Your task to perform on an android device: change the clock display to show seconds Image 0: 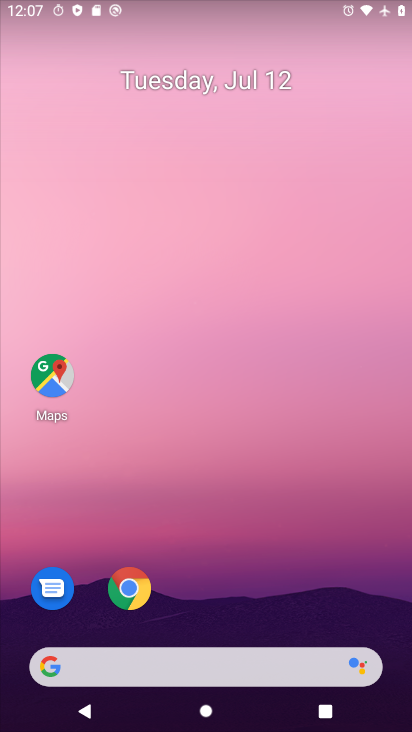
Step 0: drag from (222, 677) to (409, 89)
Your task to perform on an android device: change the clock display to show seconds Image 1: 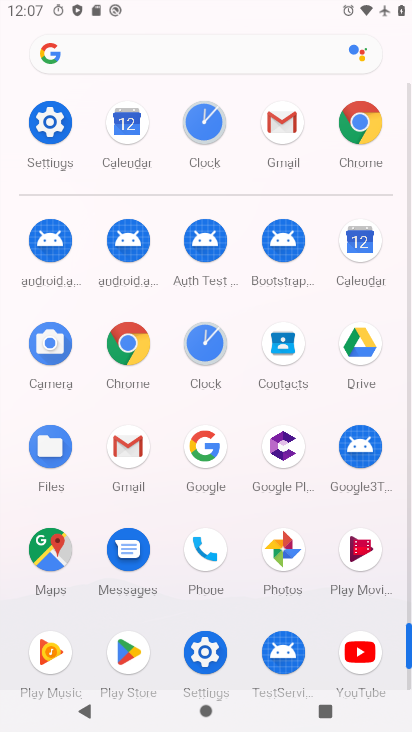
Step 1: click (206, 346)
Your task to perform on an android device: change the clock display to show seconds Image 2: 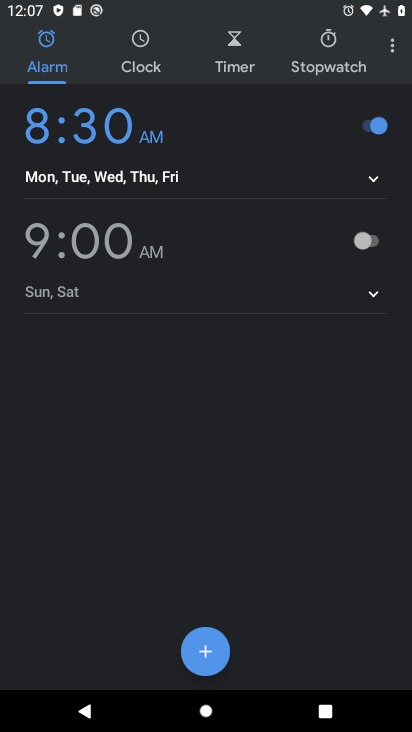
Step 2: click (394, 47)
Your task to perform on an android device: change the clock display to show seconds Image 3: 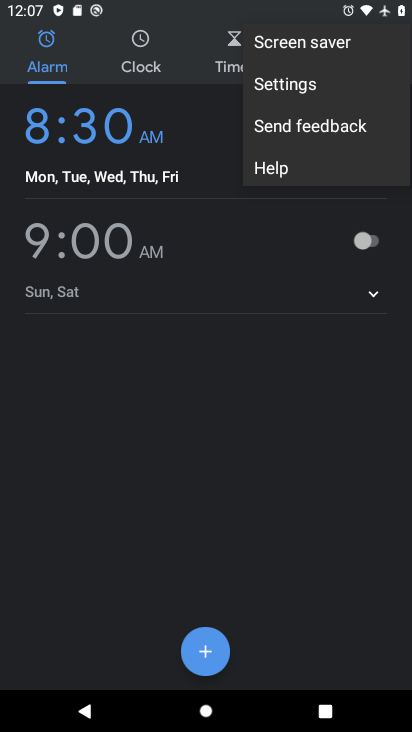
Step 3: click (315, 88)
Your task to perform on an android device: change the clock display to show seconds Image 4: 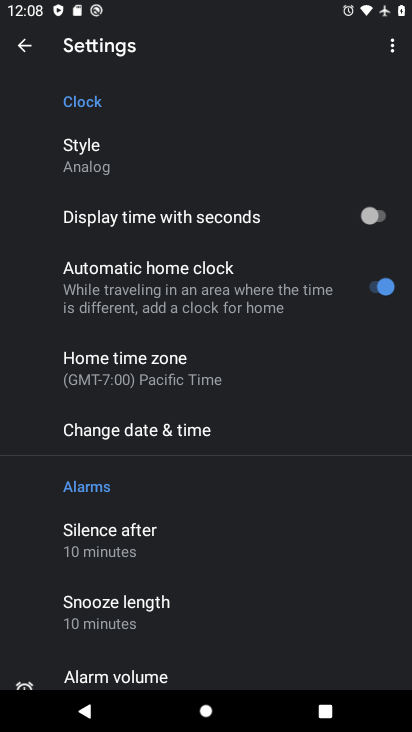
Step 4: click (376, 213)
Your task to perform on an android device: change the clock display to show seconds Image 5: 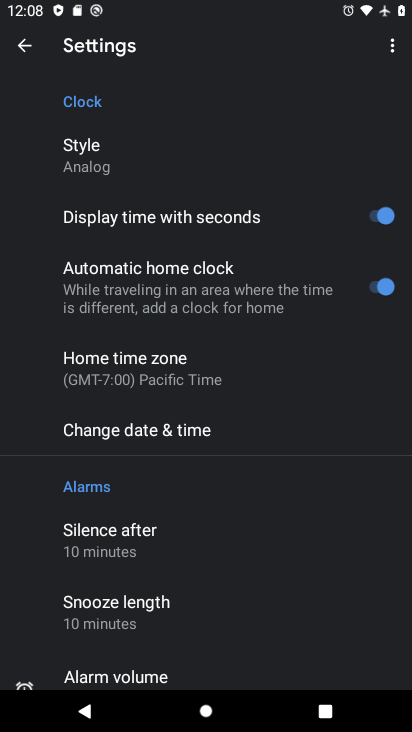
Step 5: task complete